Your task to perform on an android device: toggle notification dots Image 0: 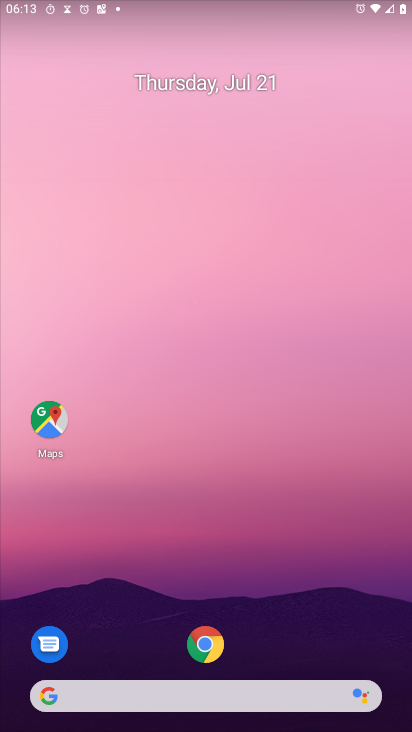
Step 0: press home button
Your task to perform on an android device: toggle notification dots Image 1: 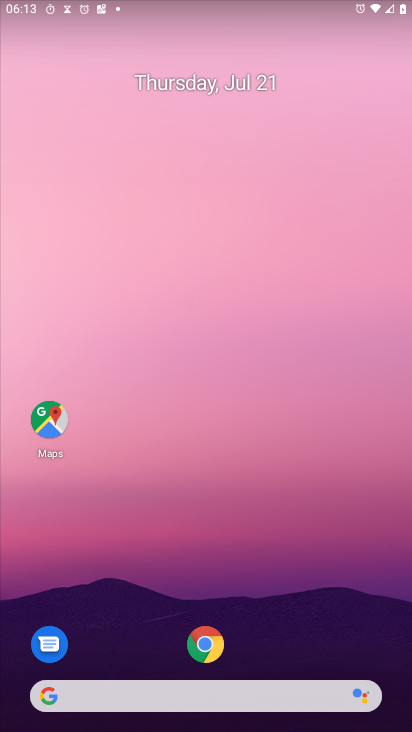
Step 1: drag from (315, 630) to (339, 97)
Your task to perform on an android device: toggle notification dots Image 2: 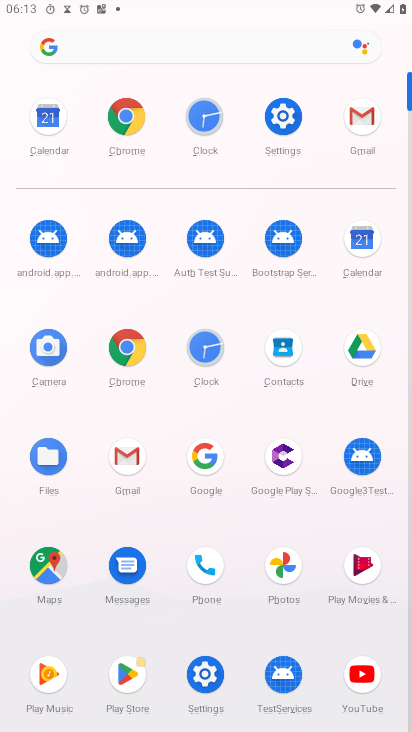
Step 2: click (285, 108)
Your task to perform on an android device: toggle notification dots Image 3: 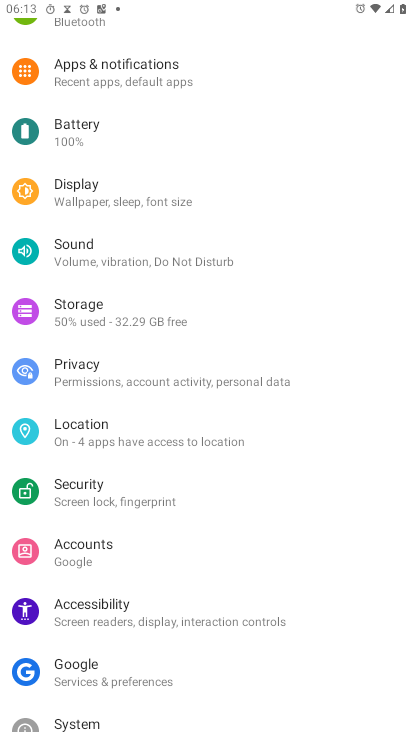
Step 3: click (97, 74)
Your task to perform on an android device: toggle notification dots Image 4: 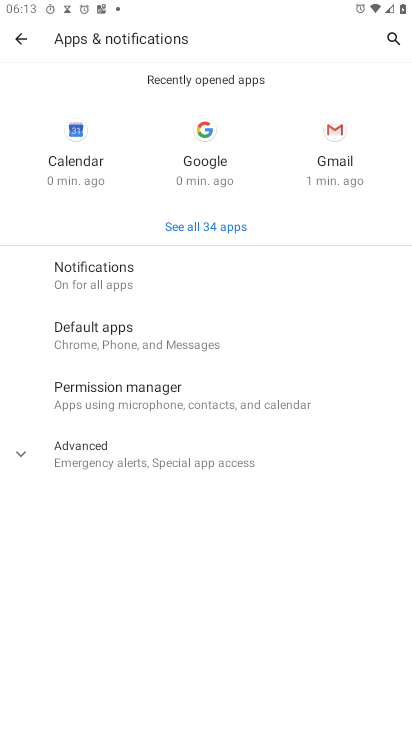
Step 4: click (94, 267)
Your task to perform on an android device: toggle notification dots Image 5: 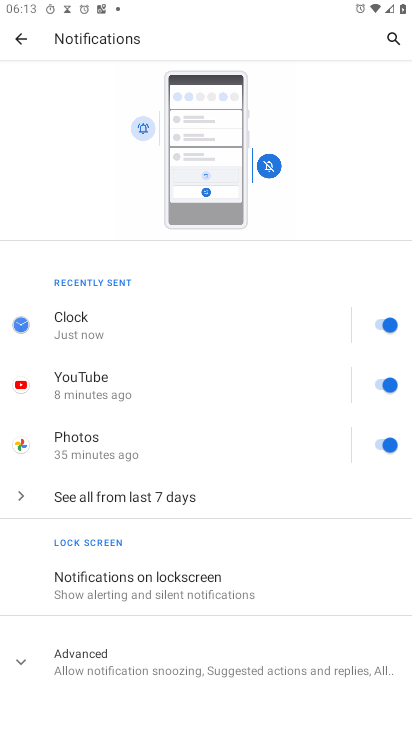
Step 5: click (14, 659)
Your task to perform on an android device: toggle notification dots Image 6: 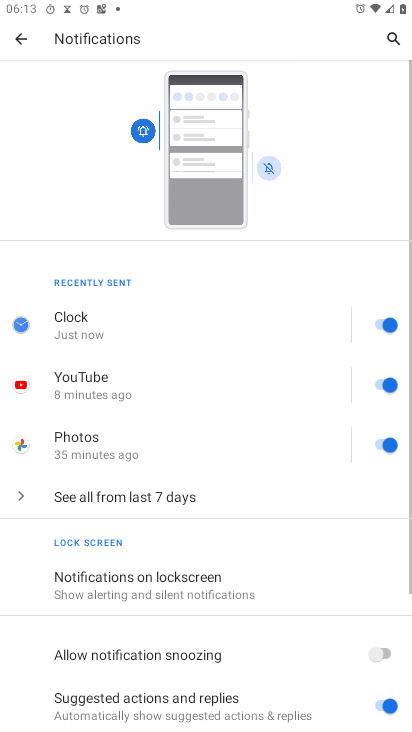
Step 6: drag from (285, 627) to (283, 289)
Your task to perform on an android device: toggle notification dots Image 7: 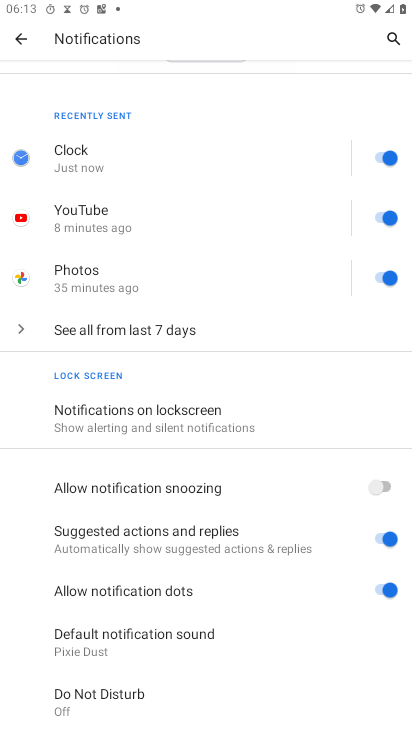
Step 7: click (386, 586)
Your task to perform on an android device: toggle notification dots Image 8: 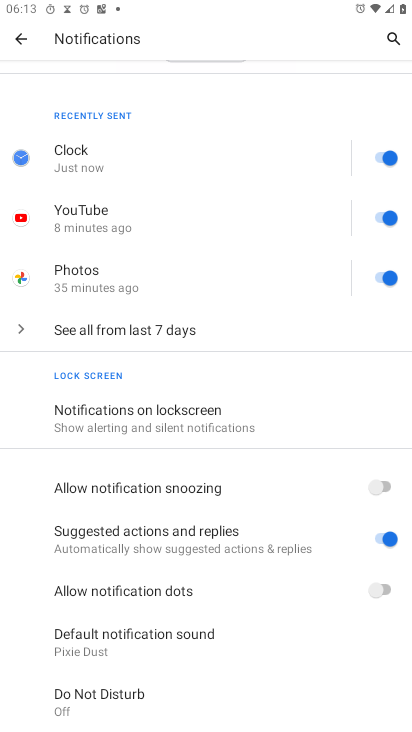
Step 8: task complete